Your task to perform on an android device: turn off priority inbox in the gmail app Image 0: 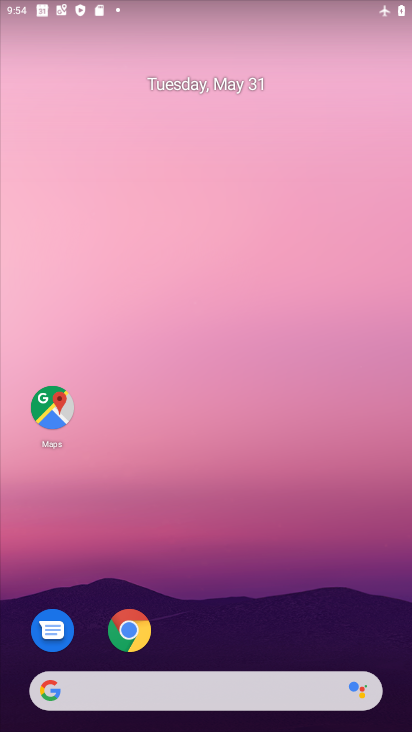
Step 0: click (260, 648)
Your task to perform on an android device: turn off priority inbox in the gmail app Image 1: 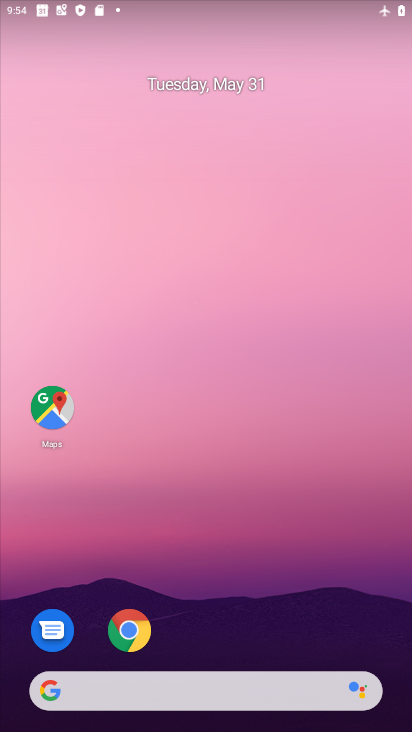
Step 1: drag from (260, 619) to (270, 271)
Your task to perform on an android device: turn off priority inbox in the gmail app Image 2: 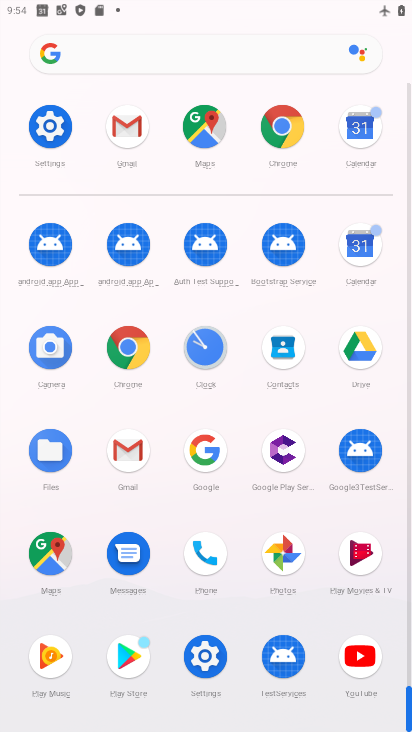
Step 2: click (119, 451)
Your task to perform on an android device: turn off priority inbox in the gmail app Image 3: 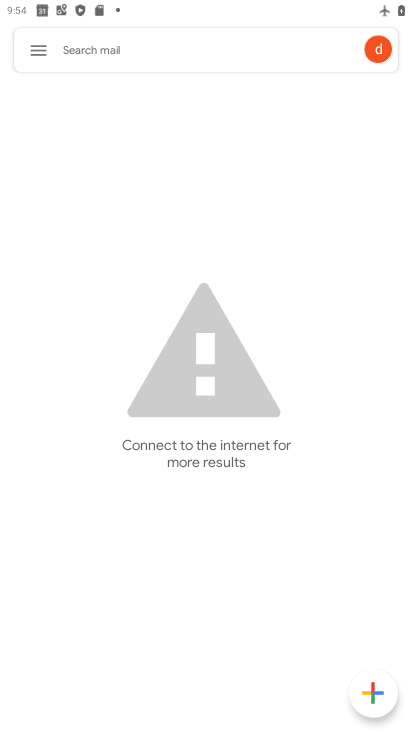
Step 3: click (41, 55)
Your task to perform on an android device: turn off priority inbox in the gmail app Image 4: 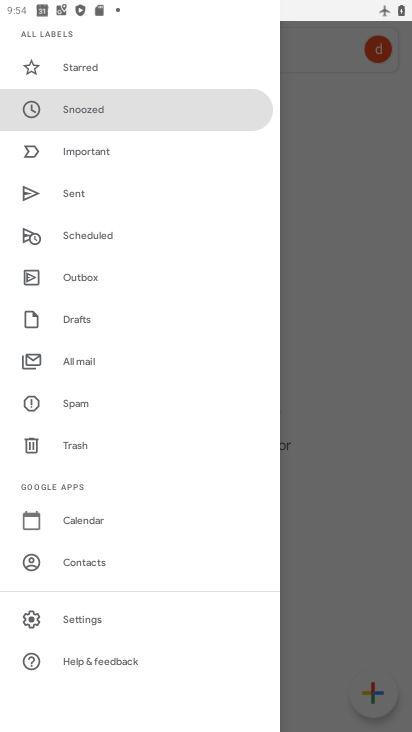
Step 4: click (87, 622)
Your task to perform on an android device: turn off priority inbox in the gmail app Image 5: 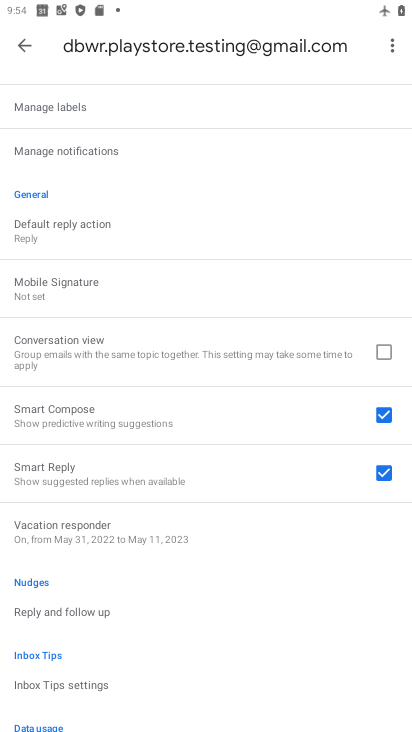
Step 5: drag from (109, 198) to (132, 576)
Your task to perform on an android device: turn off priority inbox in the gmail app Image 6: 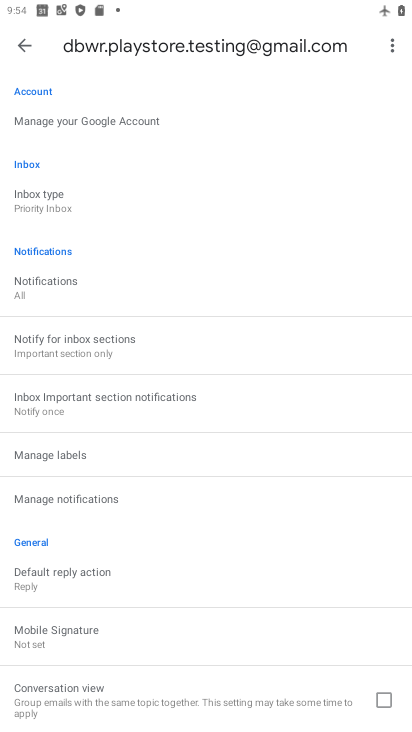
Step 6: drag from (133, 177) to (154, 422)
Your task to perform on an android device: turn off priority inbox in the gmail app Image 7: 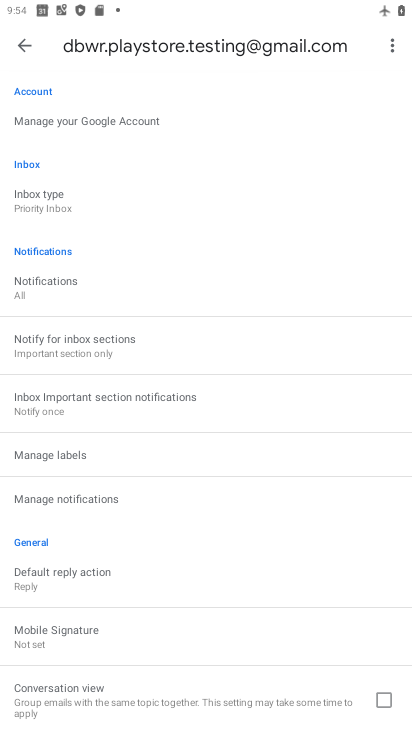
Step 7: click (56, 209)
Your task to perform on an android device: turn off priority inbox in the gmail app Image 8: 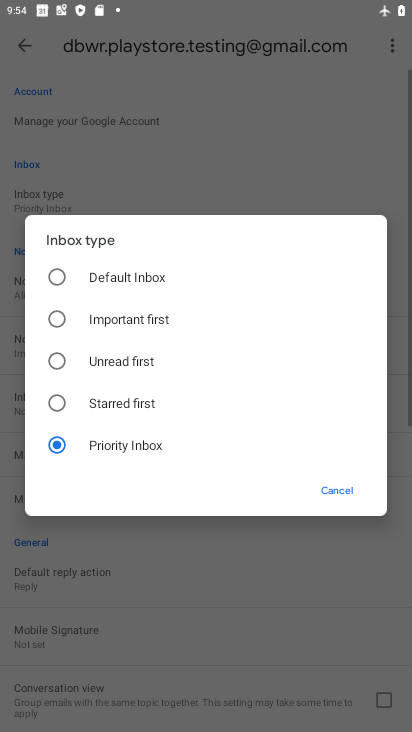
Step 8: click (141, 269)
Your task to perform on an android device: turn off priority inbox in the gmail app Image 9: 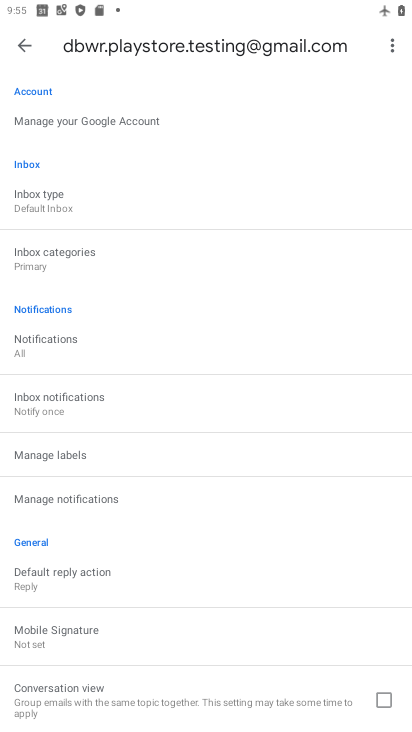
Step 9: task complete